Your task to perform on an android device: Open the stopwatch Image 0: 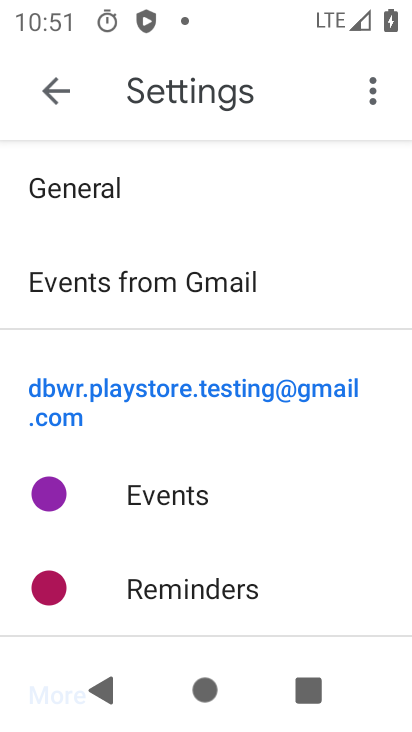
Step 0: press home button
Your task to perform on an android device: Open the stopwatch Image 1: 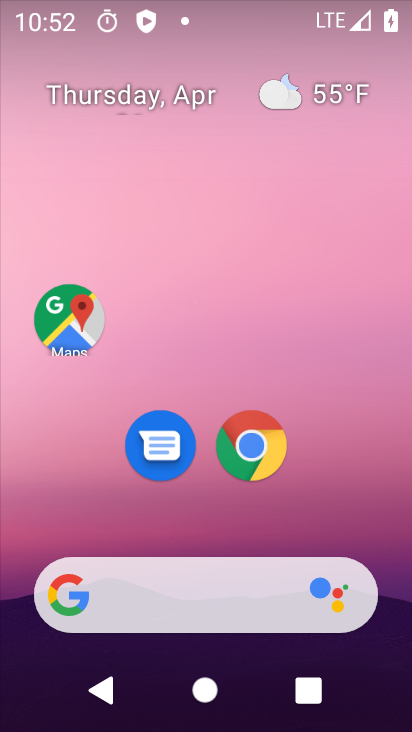
Step 1: drag from (396, 550) to (392, 26)
Your task to perform on an android device: Open the stopwatch Image 2: 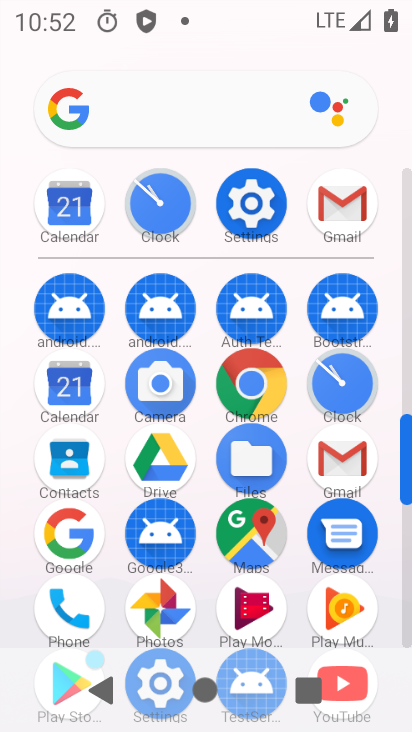
Step 2: click (155, 207)
Your task to perform on an android device: Open the stopwatch Image 3: 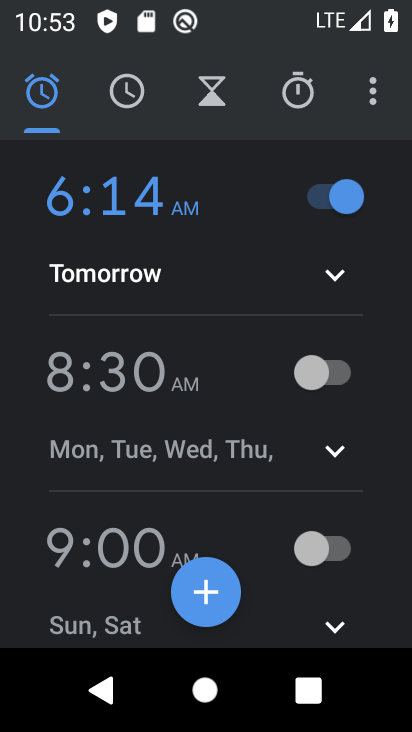
Step 3: click (286, 94)
Your task to perform on an android device: Open the stopwatch Image 4: 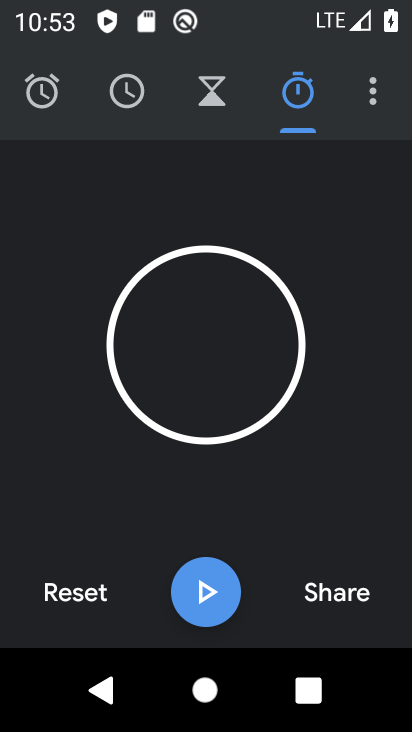
Step 4: task complete